Your task to perform on an android device: delete a single message in the gmail app Image 0: 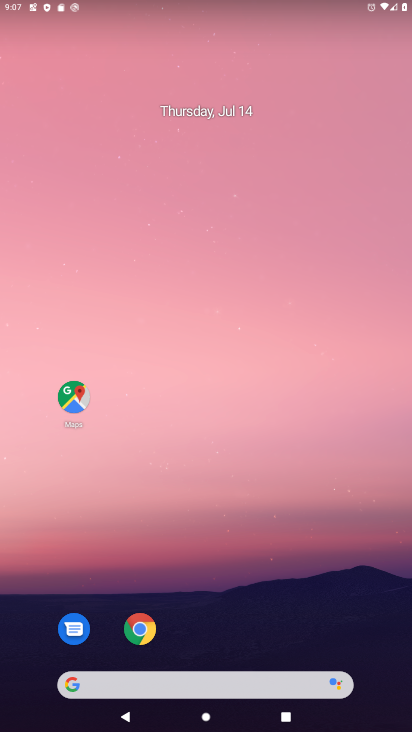
Step 0: drag from (263, 647) to (272, 20)
Your task to perform on an android device: delete a single message in the gmail app Image 1: 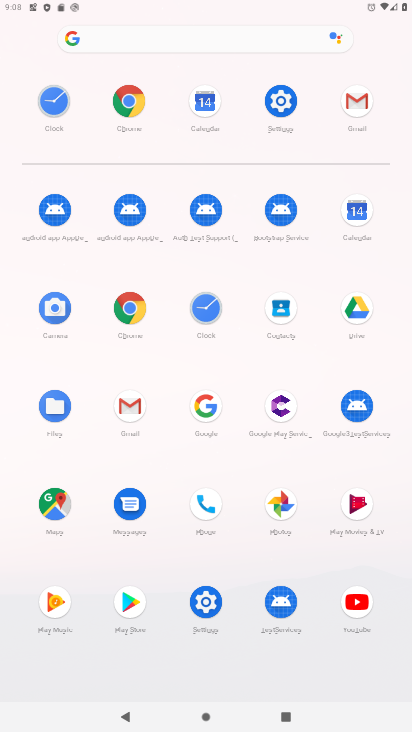
Step 1: click (354, 101)
Your task to perform on an android device: delete a single message in the gmail app Image 2: 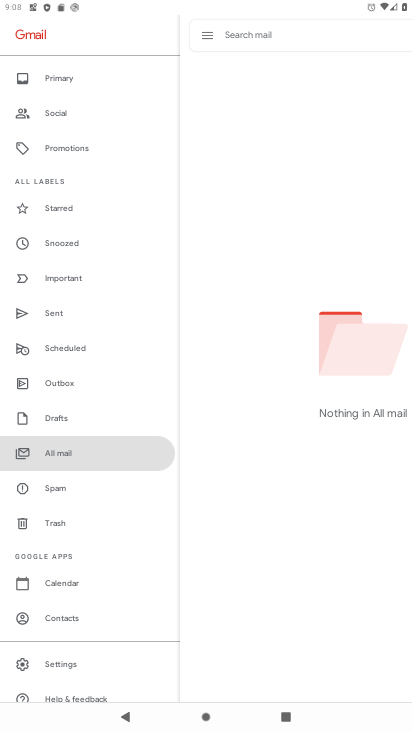
Step 2: click (69, 457)
Your task to perform on an android device: delete a single message in the gmail app Image 3: 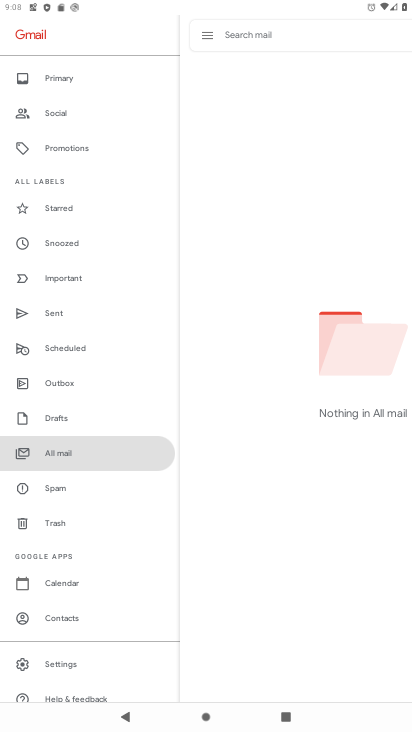
Step 3: task complete